Your task to perform on an android device: Open wifi settings Image 0: 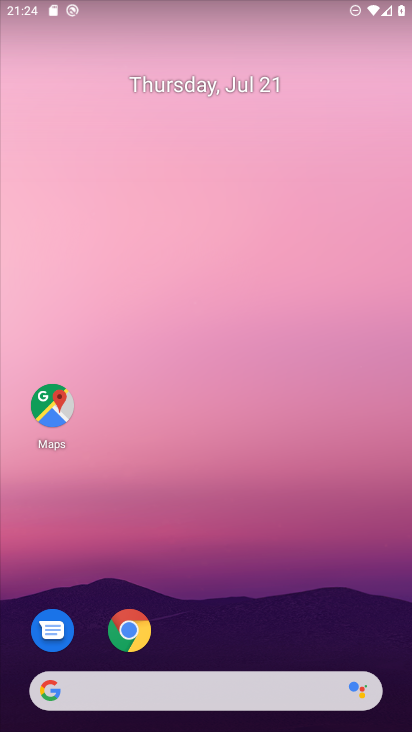
Step 0: drag from (320, 634) to (289, 25)
Your task to perform on an android device: Open wifi settings Image 1: 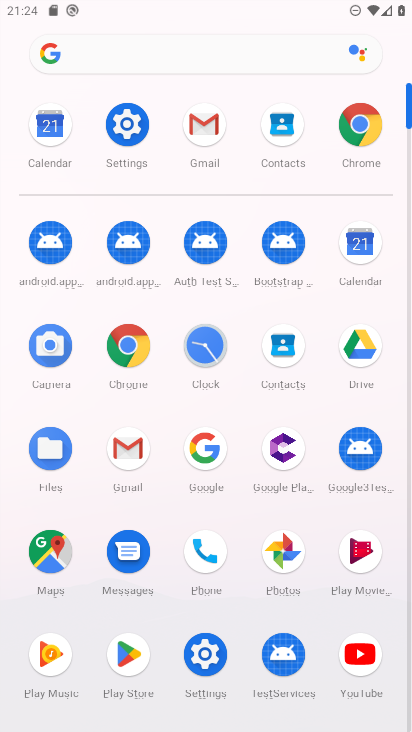
Step 1: click (136, 108)
Your task to perform on an android device: Open wifi settings Image 2: 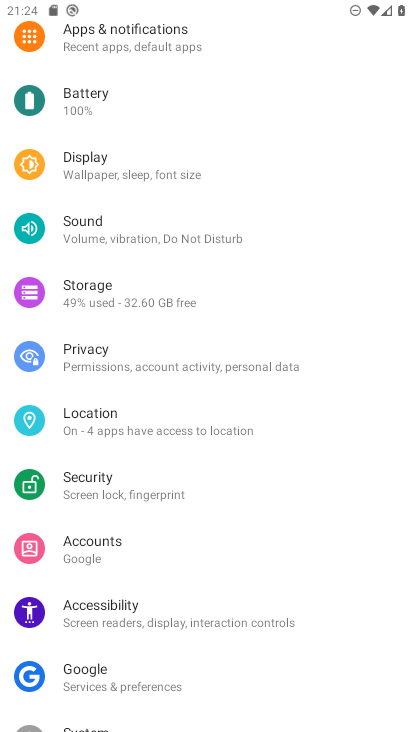
Step 2: drag from (188, 94) to (246, 563)
Your task to perform on an android device: Open wifi settings Image 3: 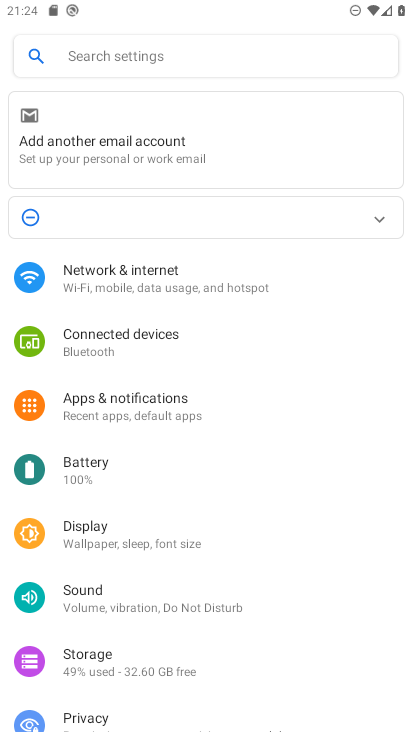
Step 3: click (167, 291)
Your task to perform on an android device: Open wifi settings Image 4: 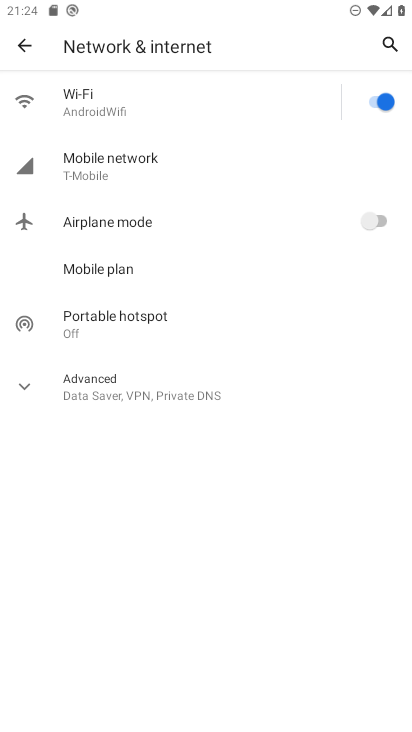
Step 4: click (189, 92)
Your task to perform on an android device: Open wifi settings Image 5: 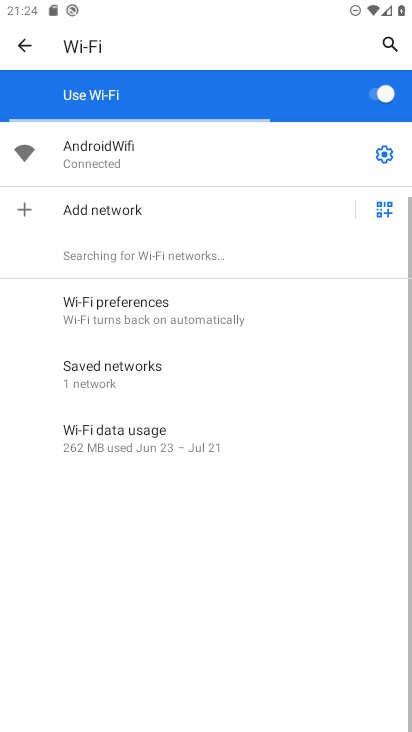
Step 5: click (389, 152)
Your task to perform on an android device: Open wifi settings Image 6: 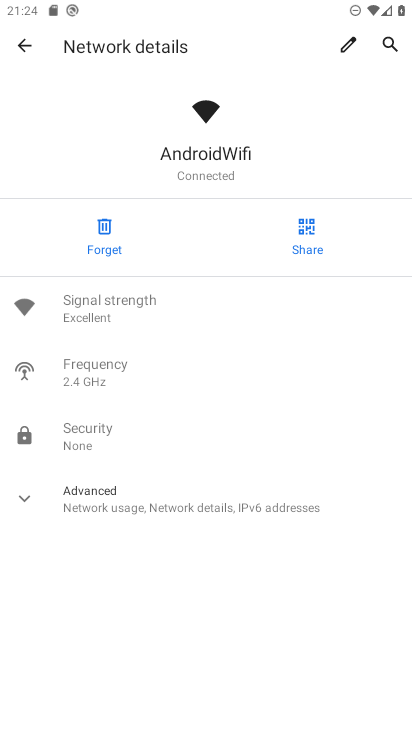
Step 6: task complete